Your task to perform on an android device: turn on the 24-hour format for clock Image 0: 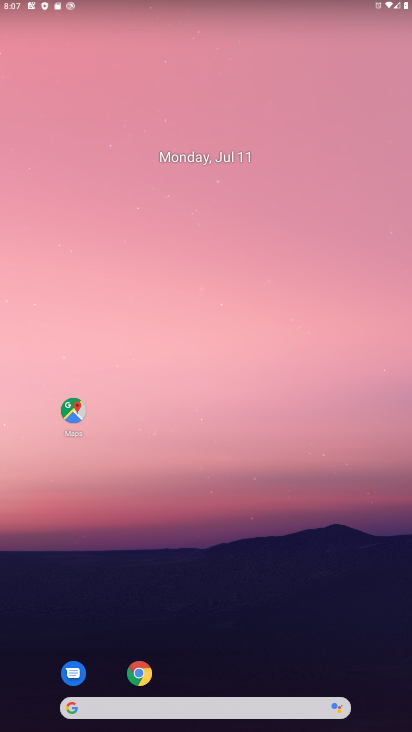
Step 0: drag from (214, 671) to (248, 1)
Your task to perform on an android device: turn on the 24-hour format for clock Image 1: 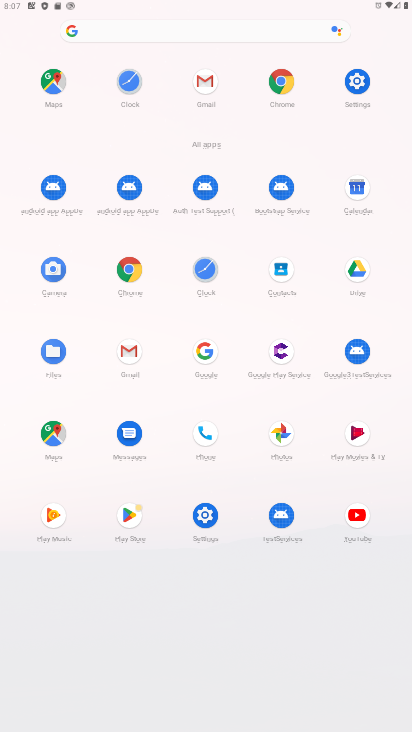
Step 1: click (204, 261)
Your task to perform on an android device: turn on the 24-hour format for clock Image 2: 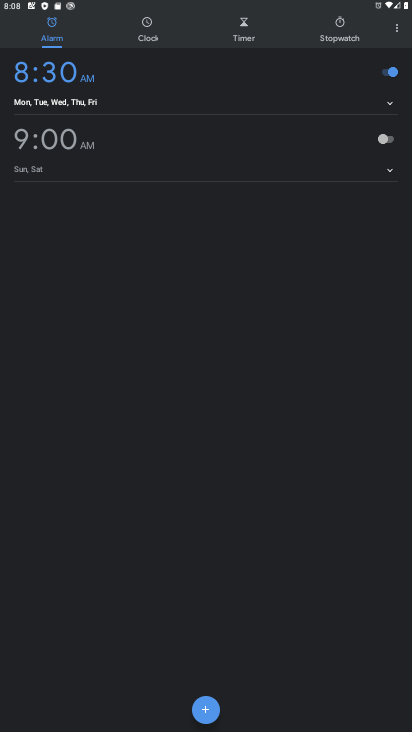
Step 2: click (394, 28)
Your task to perform on an android device: turn on the 24-hour format for clock Image 3: 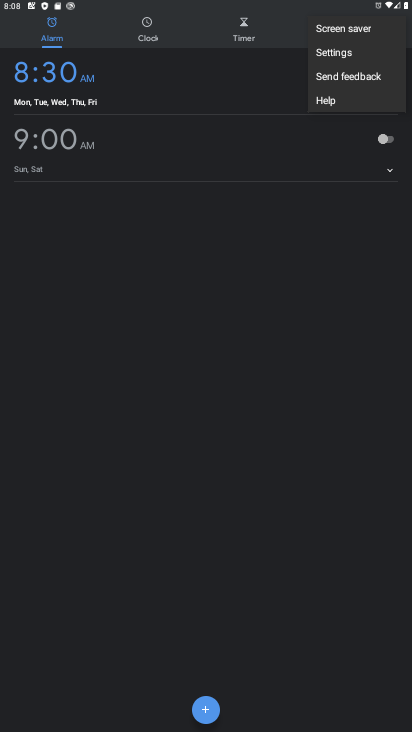
Step 3: click (354, 54)
Your task to perform on an android device: turn on the 24-hour format for clock Image 4: 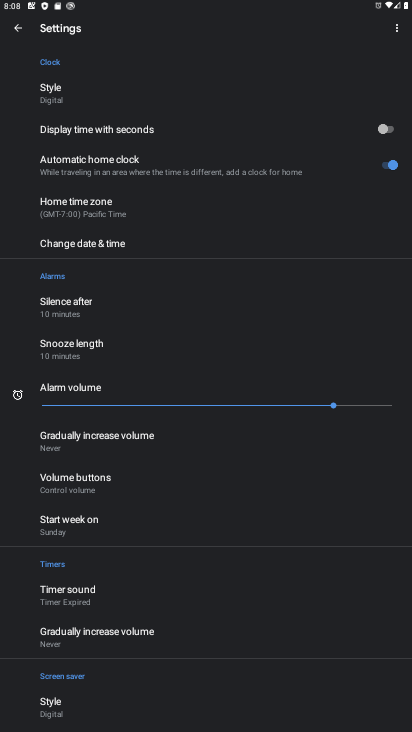
Step 4: click (136, 243)
Your task to perform on an android device: turn on the 24-hour format for clock Image 5: 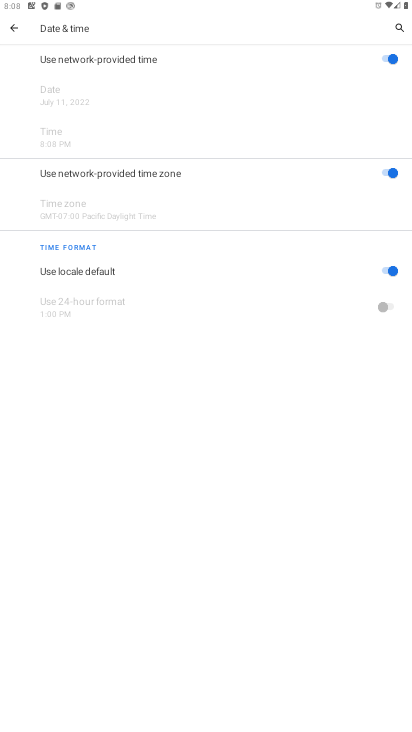
Step 5: click (391, 268)
Your task to perform on an android device: turn on the 24-hour format for clock Image 6: 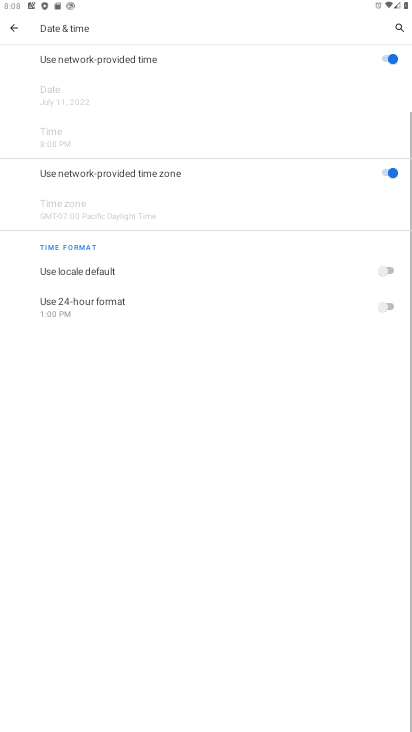
Step 6: click (389, 305)
Your task to perform on an android device: turn on the 24-hour format for clock Image 7: 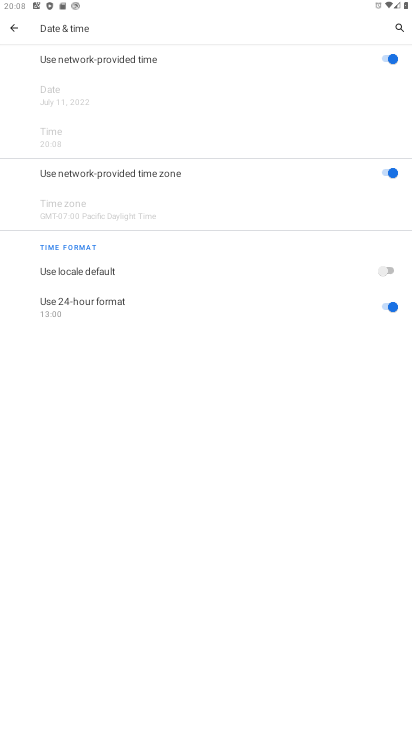
Step 7: task complete